Your task to perform on an android device: toggle show notifications on the lock screen Image 0: 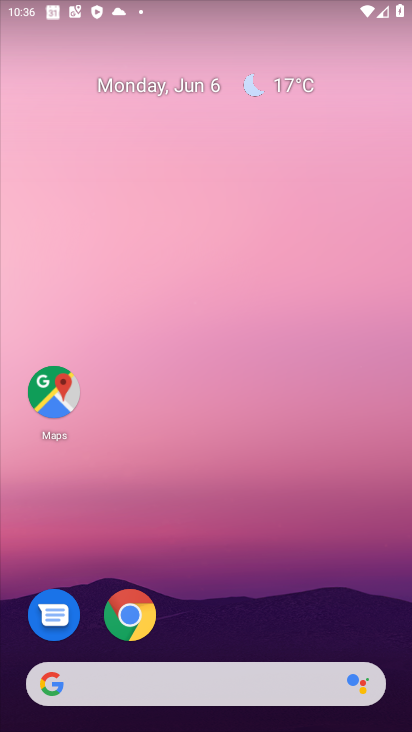
Step 0: drag from (227, 634) to (256, 116)
Your task to perform on an android device: toggle show notifications on the lock screen Image 1: 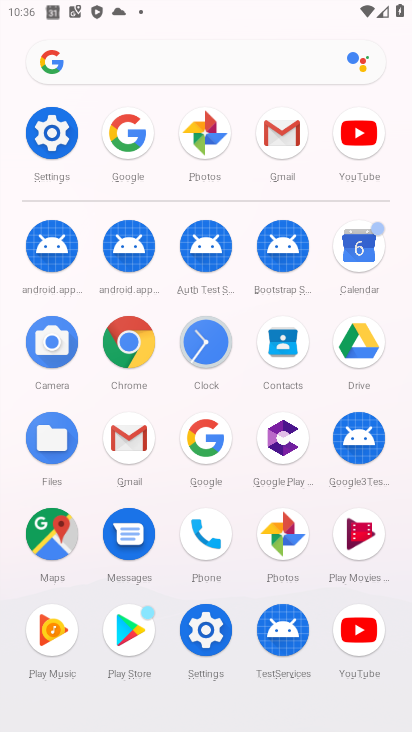
Step 1: click (46, 116)
Your task to perform on an android device: toggle show notifications on the lock screen Image 2: 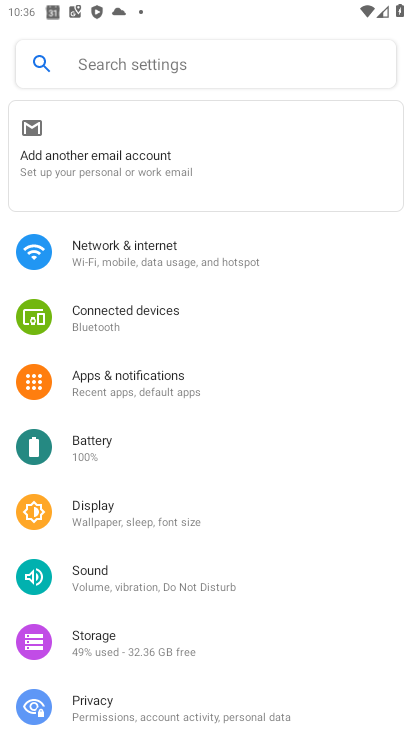
Step 2: click (118, 382)
Your task to perform on an android device: toggle show notifications on the lock screen Image 3: 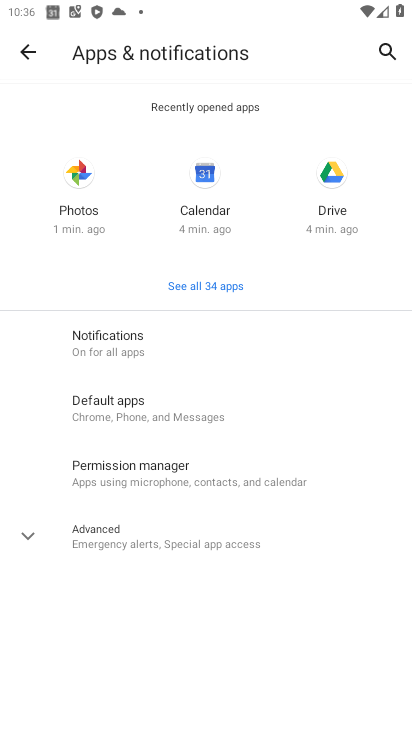
Step 3: click (144, 332)
Your task to perform on an android device: toggle show notifications on the lock screen Image 4: 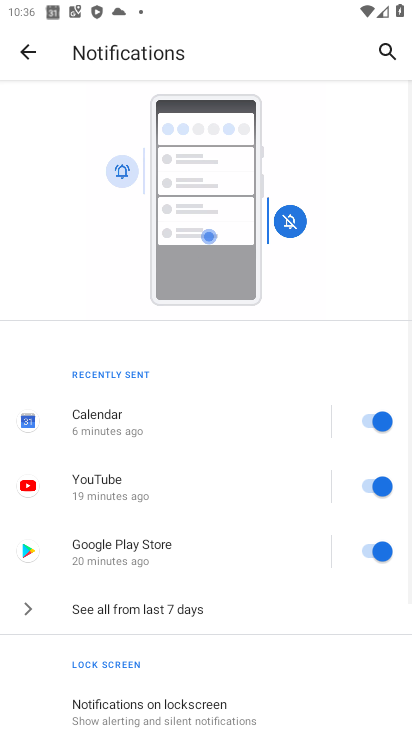
Step 4: click (150, 730)
Your task to perform on an android device: toggle show notifications on the lock screen Image 5: 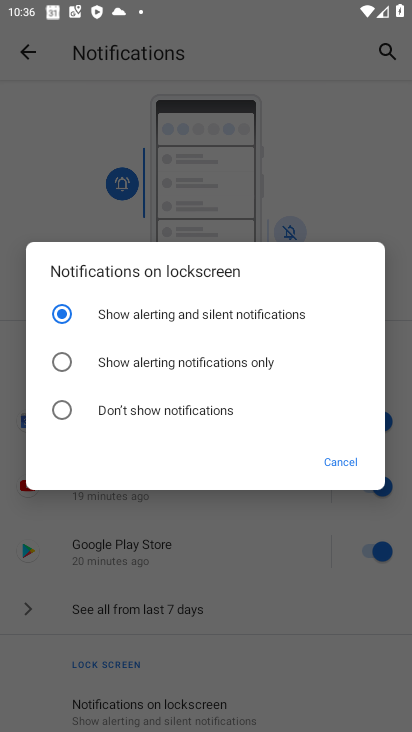
Step 5: click (69, 316)
Your task to perform on an android device: toggle show notifications on the lock screen Image 6: 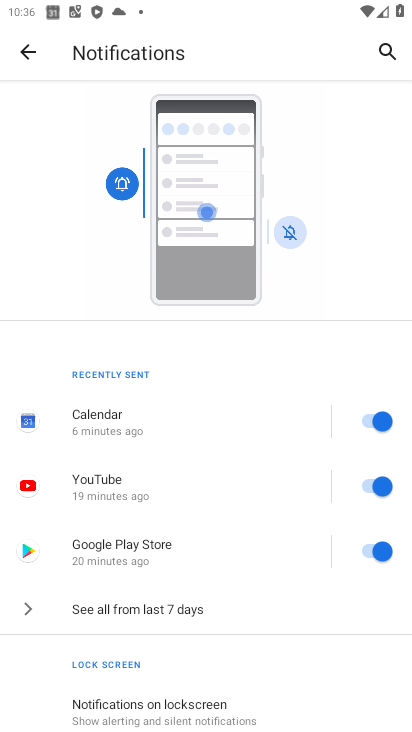
Step 6: task complete